Your task to perform on an android device: Open Wikipedia Image 0: 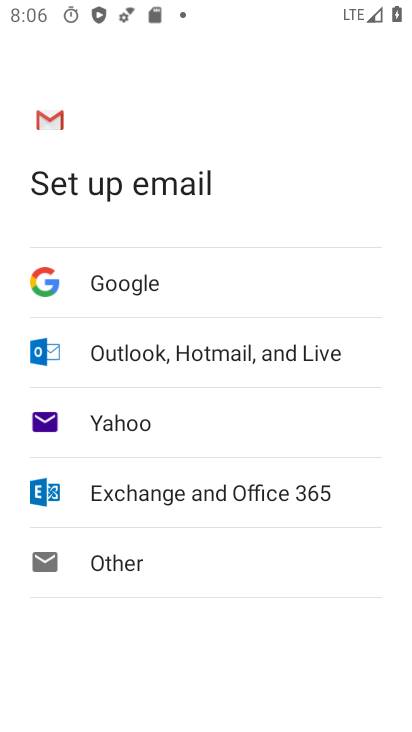
Step 0: press home button
Your task to perform on an android device: Open Wikipedia Image 1: 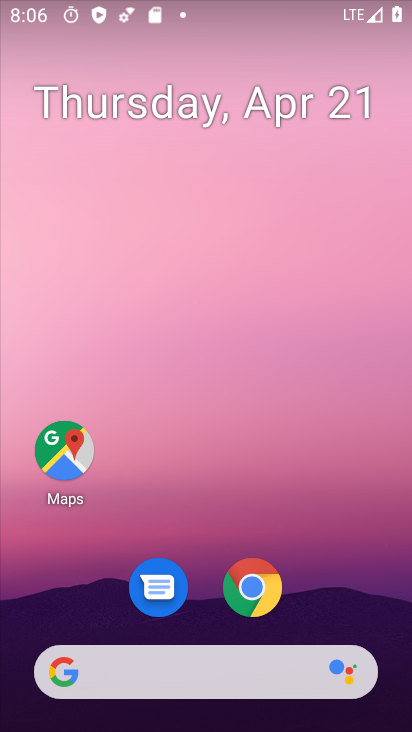
Step 1: drag from (362, 213) to (360, 172)
Your task to perform on an android device: Open Wikipedia Image 2: 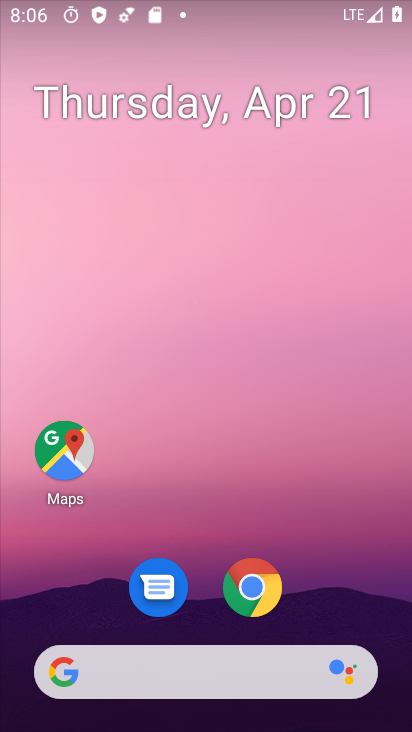
Step 2: drag from (385, 637) to (364, 151)
Your task to perform on an android device: Open Wikipedia Image 3: 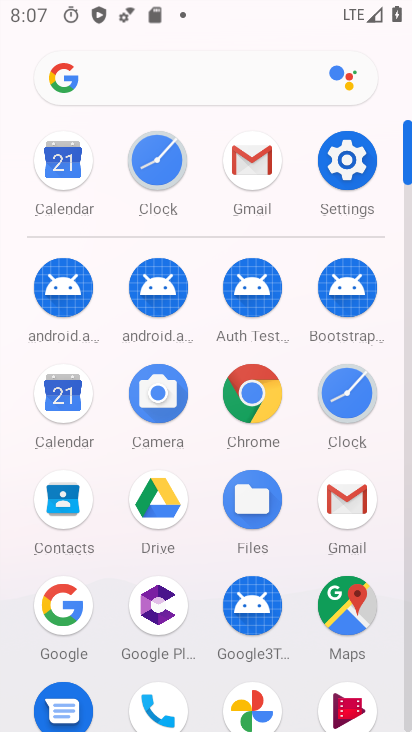
Step 3: click (252, 390)
Your task to perform on an android device: Open Wikipedia Image 4: 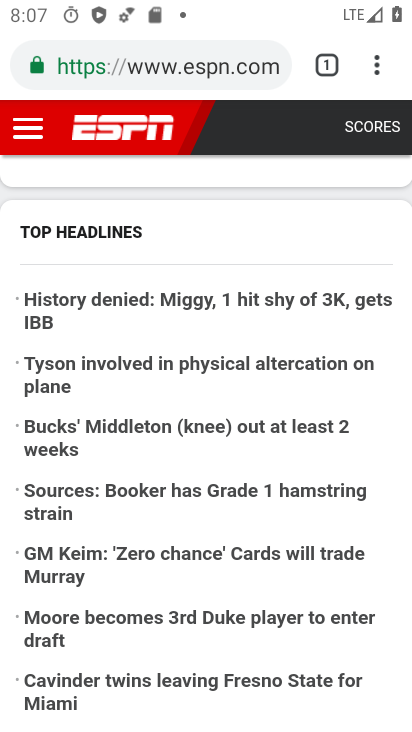
Step 4: click (282, 63)
Your task to perform on an android device: Open Wikipedia Image 5: 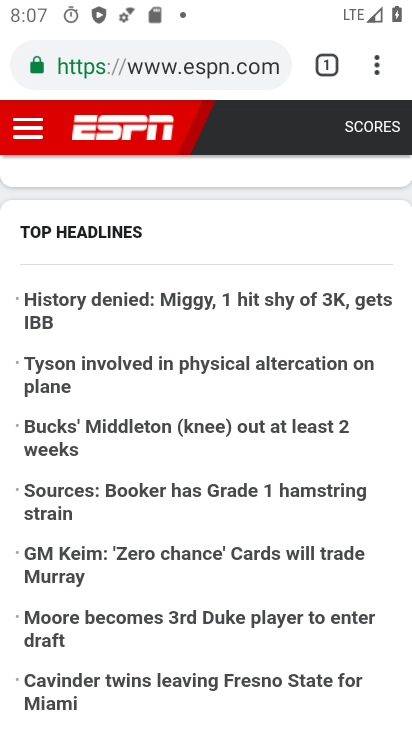
Step 5: click (280, 66)
Your task to perform on an android device: Open Wikipedia Image 6: 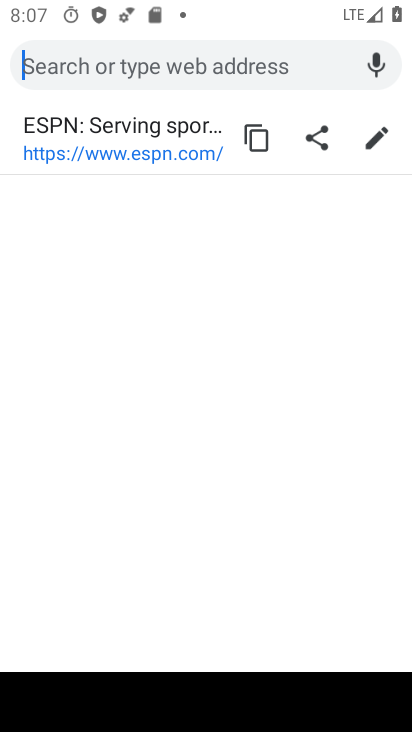
Step 6: type "Wikipedia"
Your task to perform on an android device: Open Wikipedia Image 7: 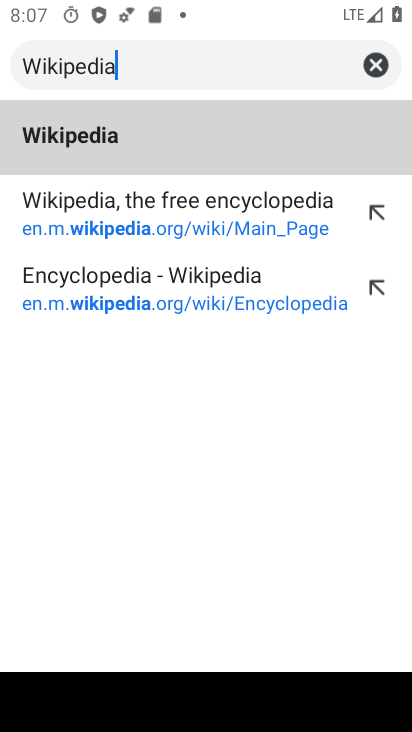
Step 7: click (88, 141)
Your task to perform on an android device: Open Wikipedia Image 8: 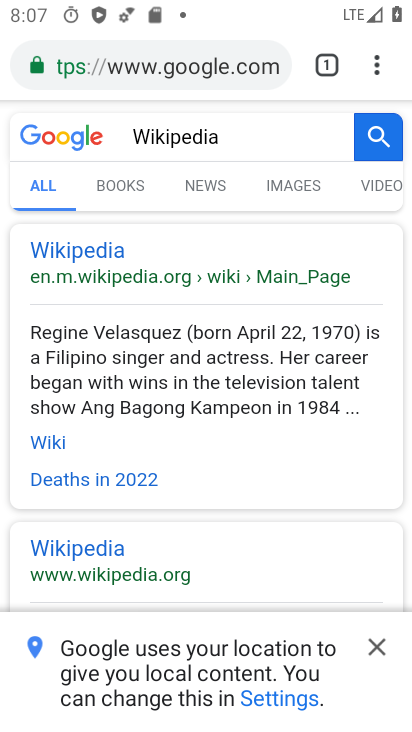
Step 8: task complete